Your task to perform on an android device: Go to display settings Image 0: 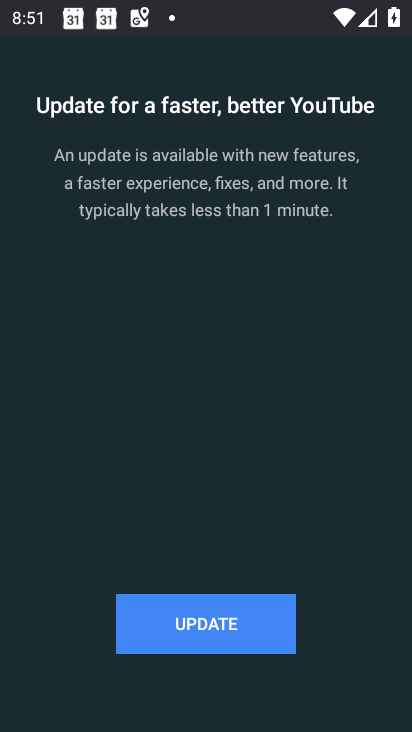
Step 0: press home button
Your task to perform on an android device: Go to display settings Image 1: 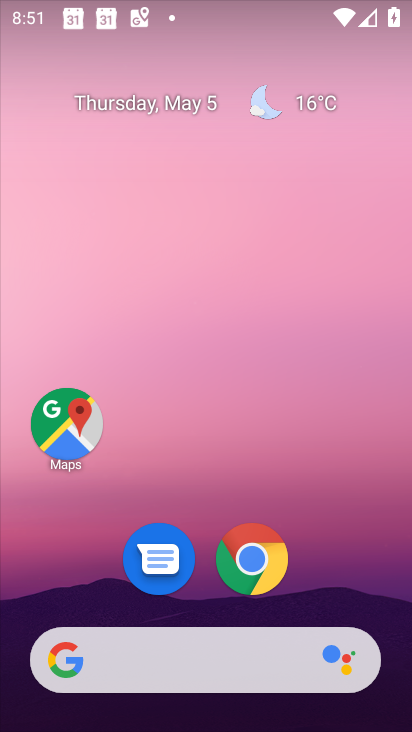
Step 1: drag from (341, 594) to (336, 7)
Your task to perform on an android device: Go to display settings Image 2: 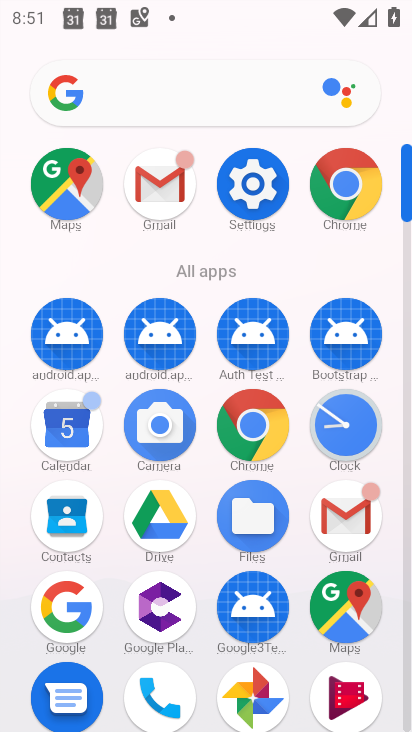
Step 2: click (253, 188)
Your task to perform on an android device: Go to display settings Image 3: 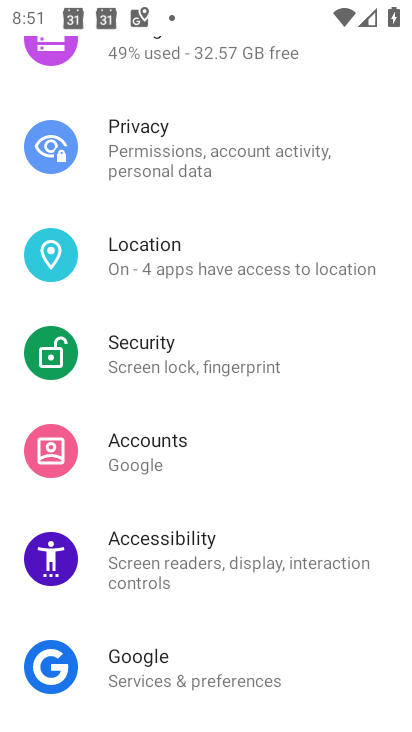
Step 3: drag from (333, 320) to (355, 560)
Your task to perform on an android device: Go to display settings Image 4: 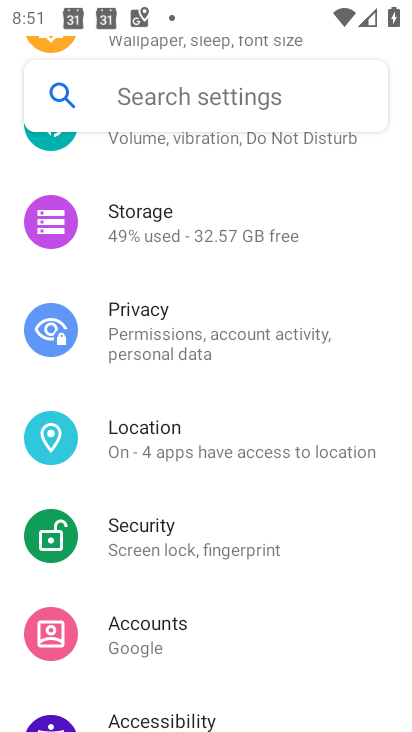
Step 4: drag from (325, 266) to (349, 516)
Your task to perform on an android device: Go to display settings Image 5: 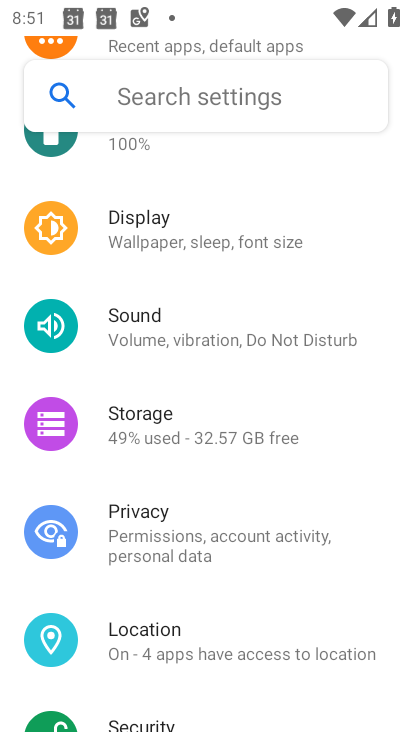
Step 5: click (142, 241)
Your task to perform on an android device: Go to display settings Image 6: 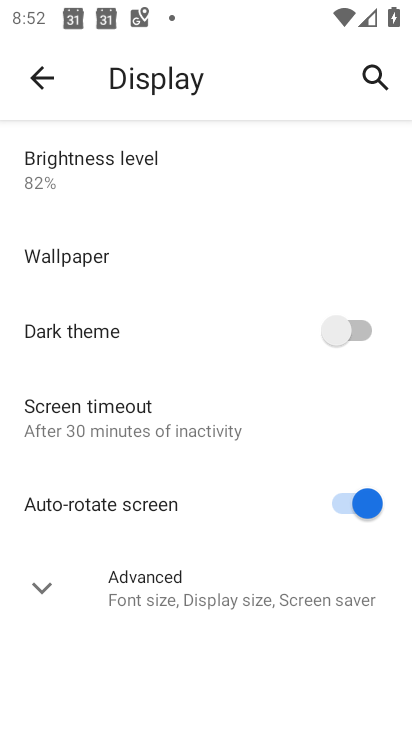
Step 6: task complete